Your task to perform on an android device: turn on showing notifications on the lock screen Image 0: 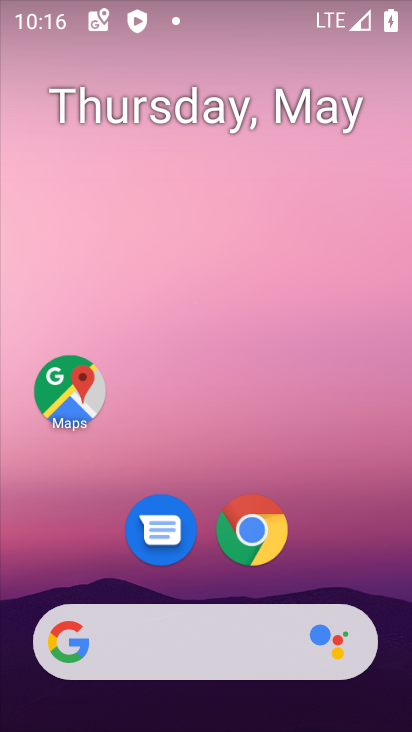
Step 0: drag from (214, 704) to (260, 77)
Your task to perform on an android device: turn on showing notifications on the lock screen Image 1: 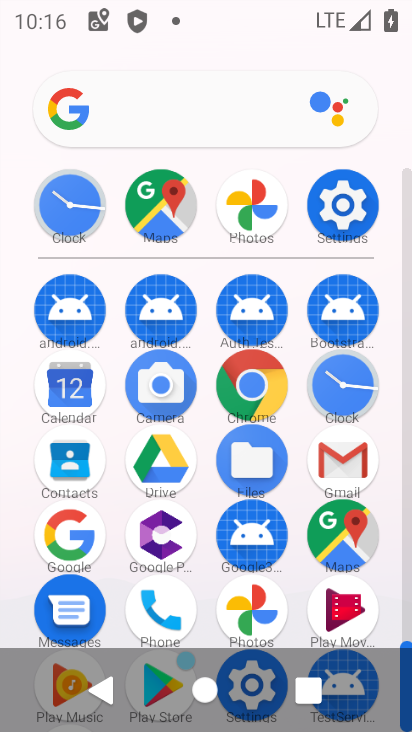
Step 1: click (359, 196)
Your task to perform on an android device: turn on showing notifications on the lock screen Image 2: 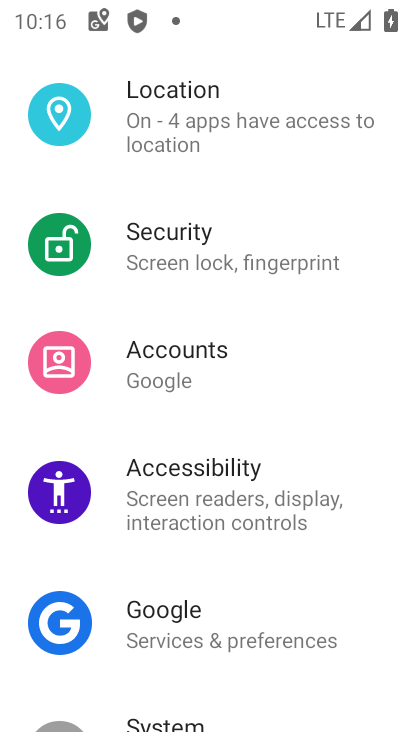
Step 2: drag from (237, 248) to (226, 642)
Your task to perform on an android device: turn on showing notifications on the lock screen Image 3: 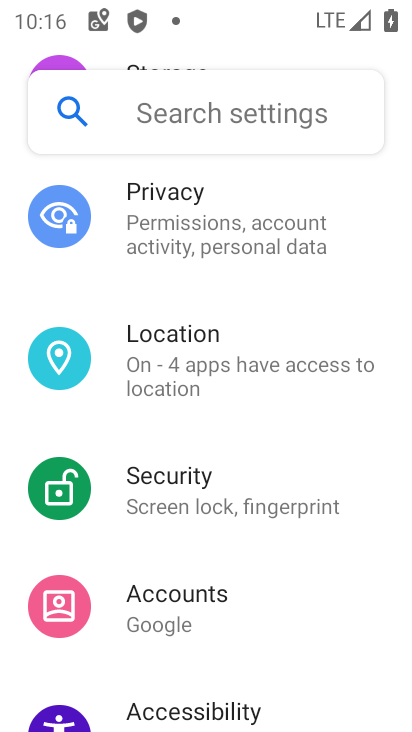
Step 3: drag from (289, 255) to (274, 600)
Your task to perform on an android device: turn on showing notifications on the lock screen Image 4: 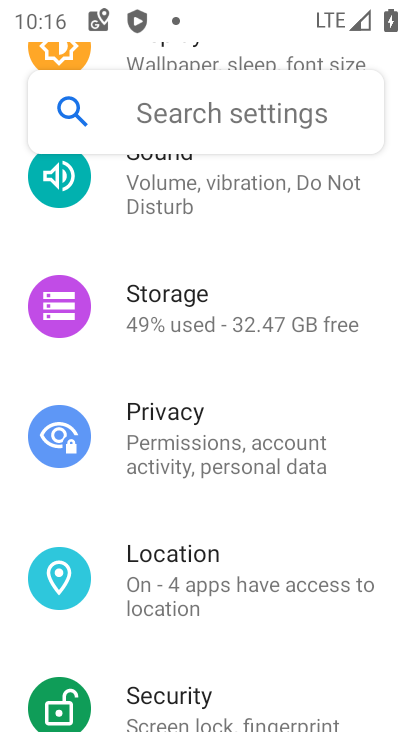
Step 4: drag from (309, 232) to (300, 612)
Your task to perform on an android device: turn on showing notifications on the lock screen Image 5: 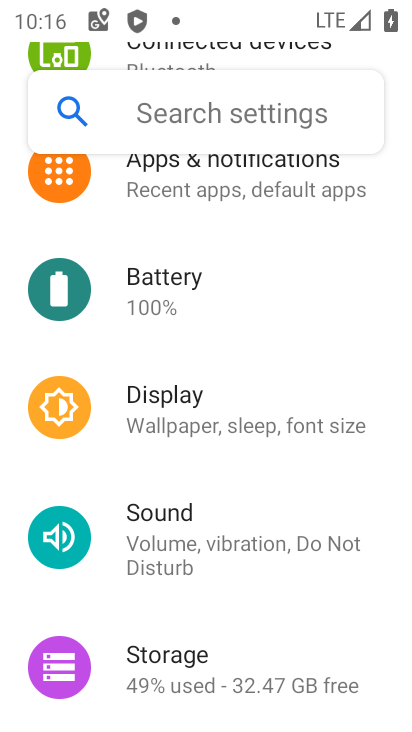
Step 5: click (301, 194)
Your task to perform on an android device: turn on showing notifications on the lock screen Image 6: 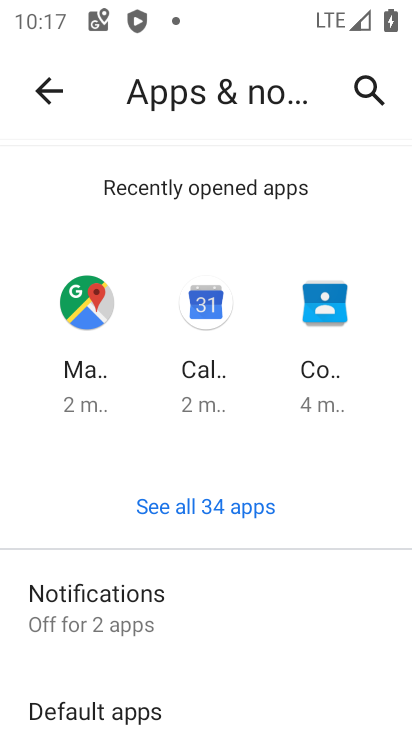
Step 6: drag from (226, 690) to (231, 92)
Your task to perform on an android device: turn on showing notifications on the lock screen Image 7: 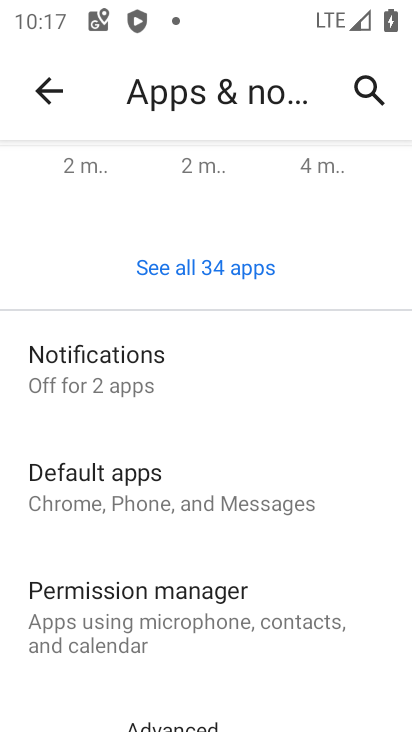
Step 7: click (182, 385)
Your task to perform on an android device: turn on showing notifications on the lock screen Image 8: 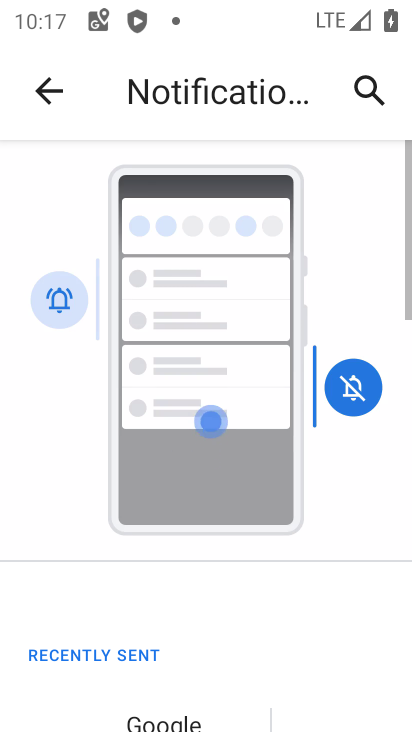
Step 8: drag from (288, 689) to (307, 63)
Your task to perform on an android device: turn on showing notifications on the lock screen Image 9: 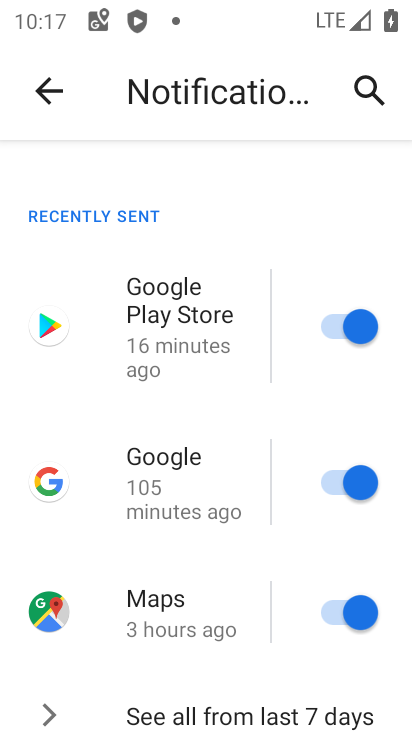
Step 9: drag from (210, 687) to (265, 202)
Your task to perform on an android device: turn on showing notifications on the lock screen Image 10: 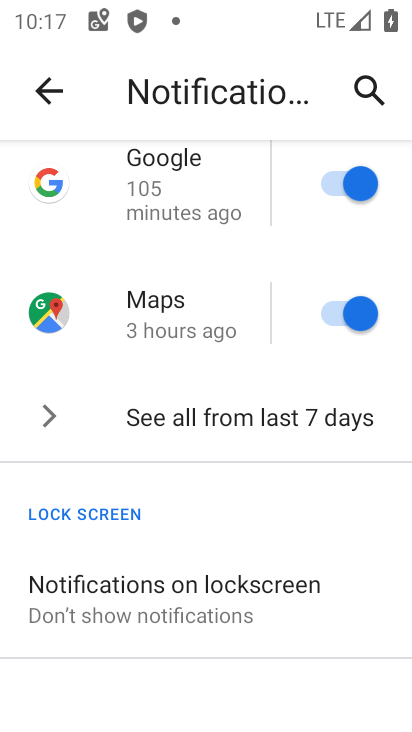
Step 10: click (200, 616)
Your task to perform on an android device: turn on showing notifications on the lock screen Image 11: 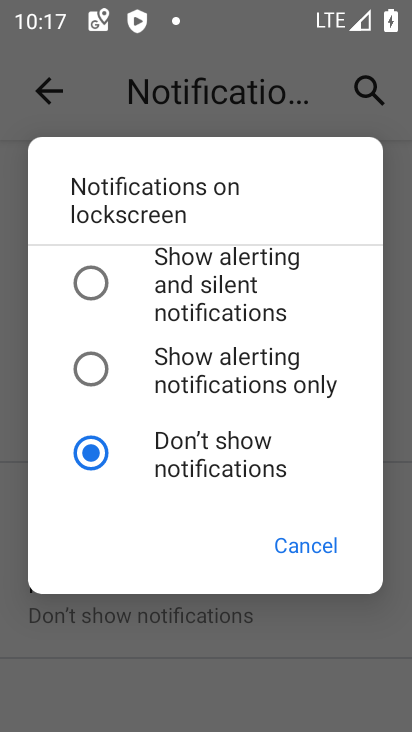
Step 11: click (169, 292)
Your task to perform on an android device: turn on showing notifications on the lock screen Image 12: 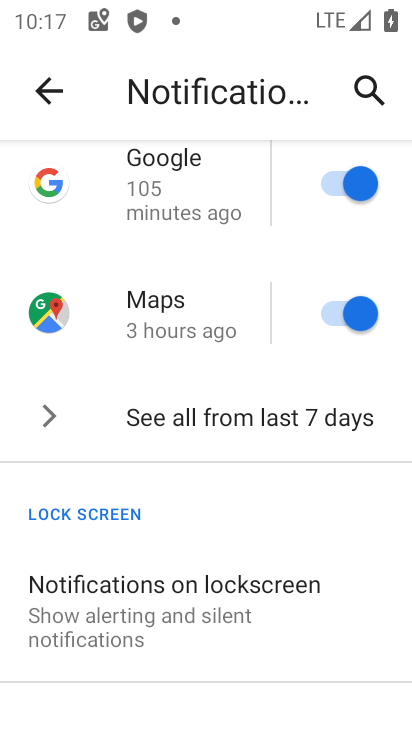
Step 12: task complete